Your task to perform on an android device: delete a single message in the gmail app Image 0: 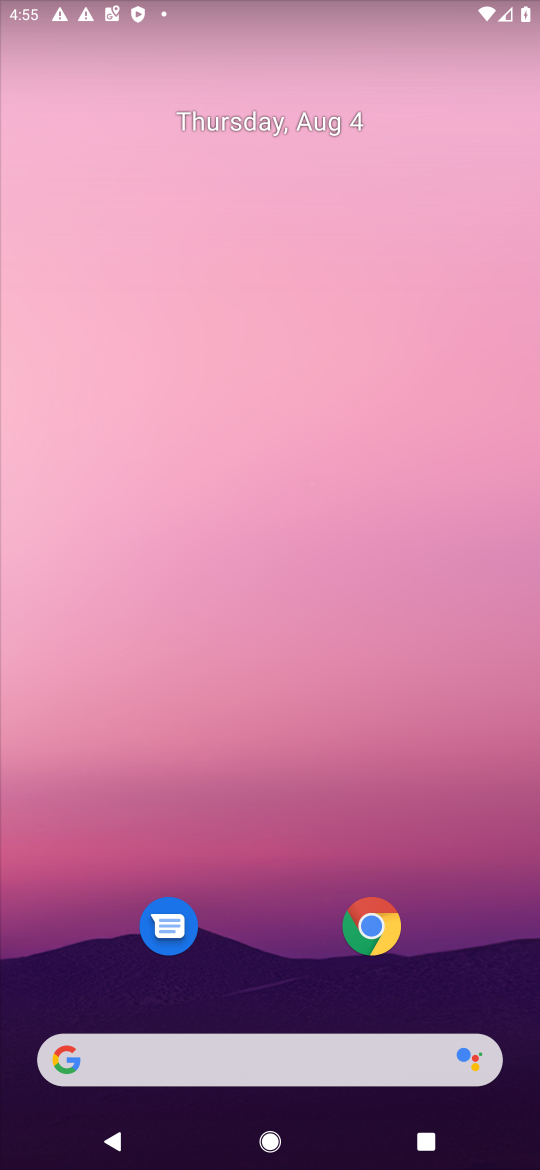
Step 0: press home button
Your task to perform on an android device: delete a single message in the gmail app Image 1: 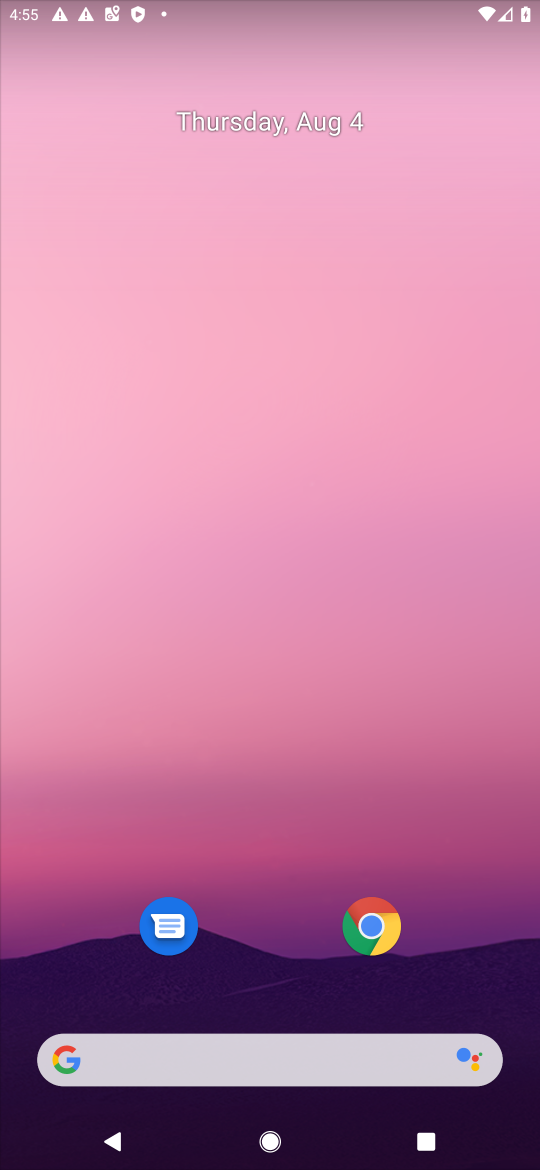
Step 1: drag from (295, 990) to (480, 11)
Your task to perform on an android device: delete a single message in the gmail app Image 2: 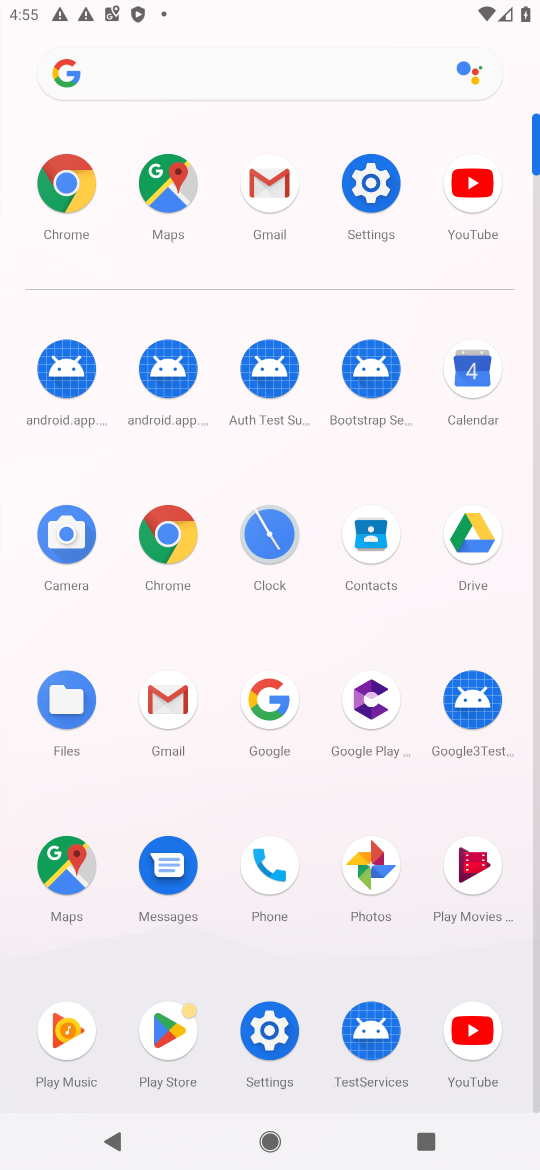
Step 2: click (265, 199)
Your task to perform on an android device: delete a single message in the gmail app Image 3: 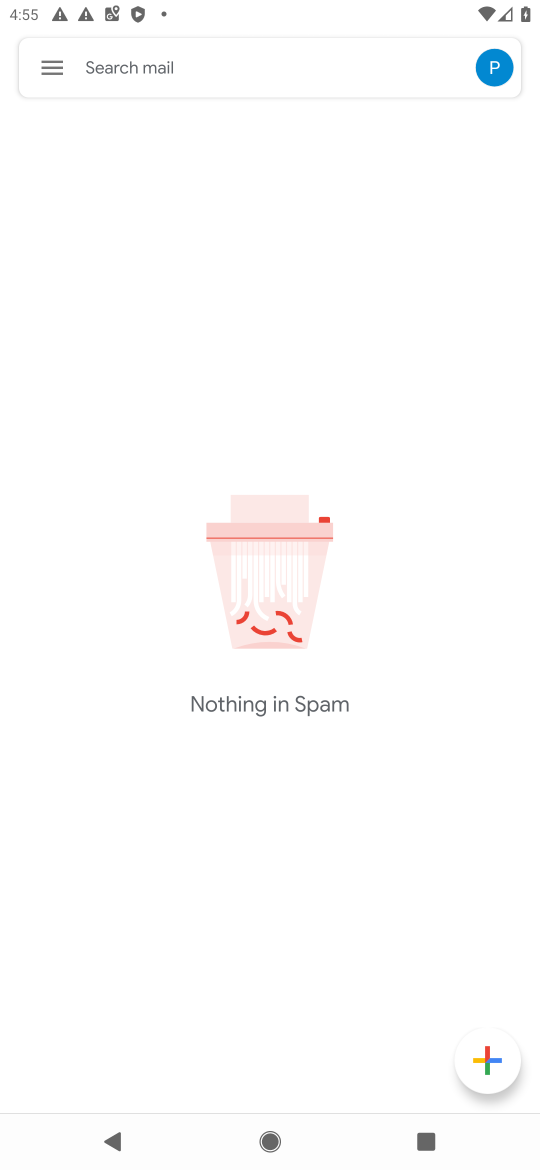
Step 3: click (38, 61)
Your task to perform on an android device: delete a single message in the gmail app Image 4: 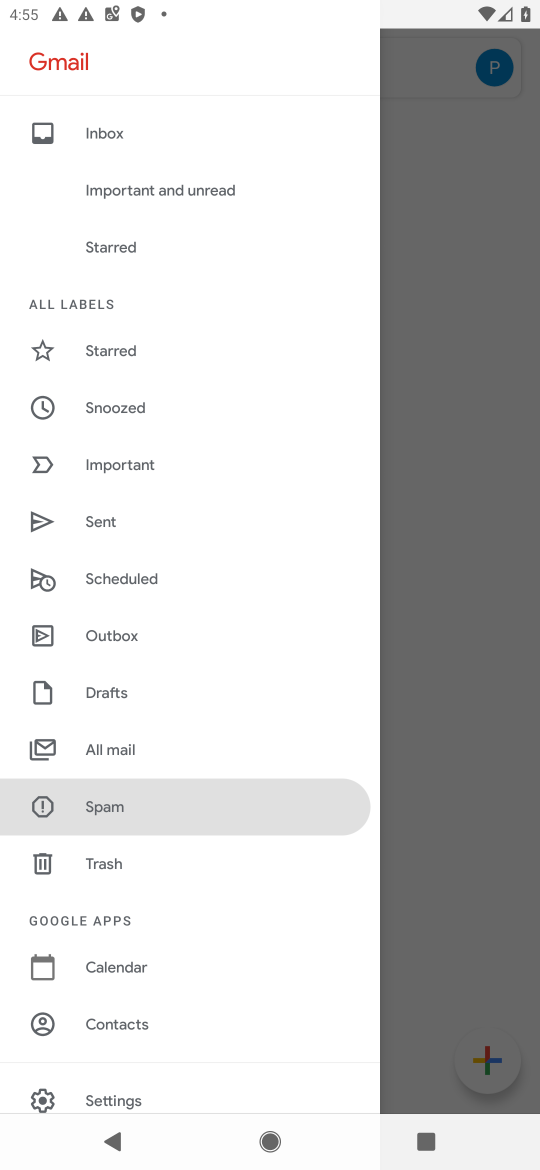
Step 4: click (134, 750)
Your task to perform on an android device: delete a single message in the gmail app Image 5: 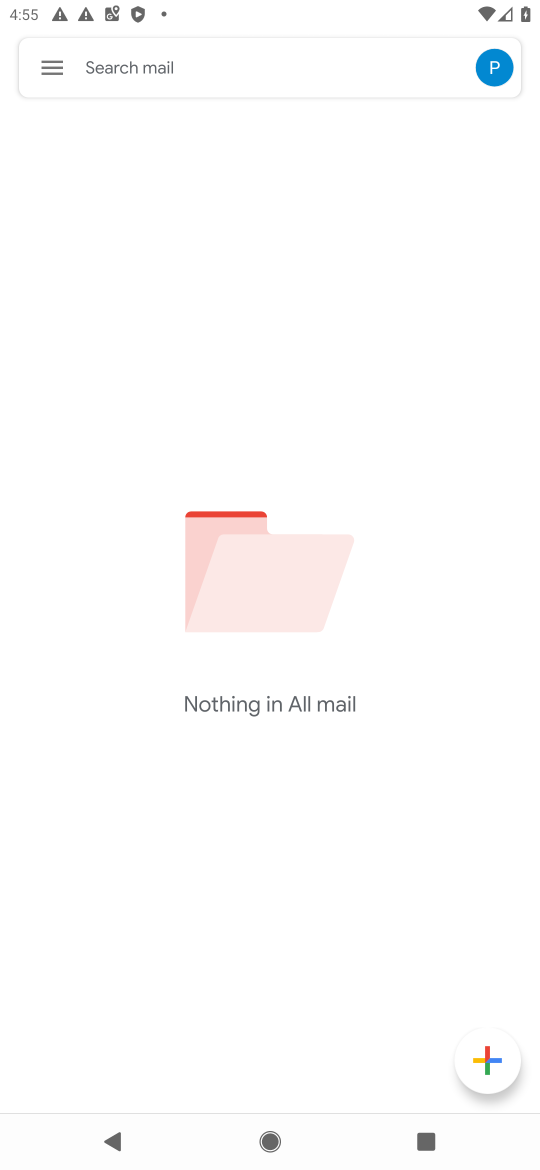
Step 5: task complete